Your task to perform on an android device: turn off smart reply in the gmail app Image 0: 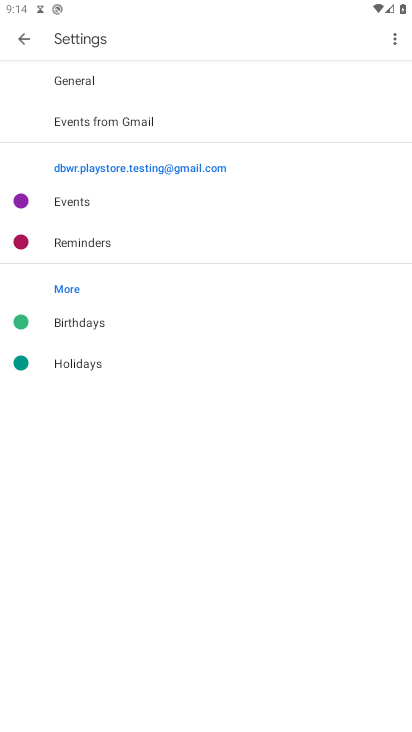
Step 0: press home button
Your task to perform on an android device: turn off smart reply in the gmail app Image 1: 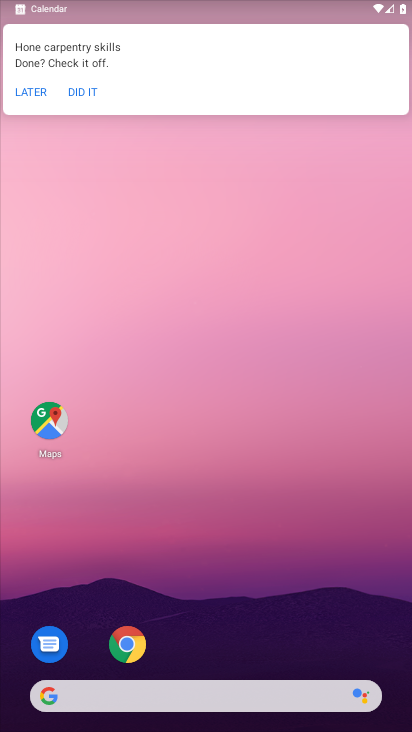
Step 1: drag from (215, 655) to (239, 126)
Your task to perform on an android device: turn off smart reply in the gmail app Image 2: 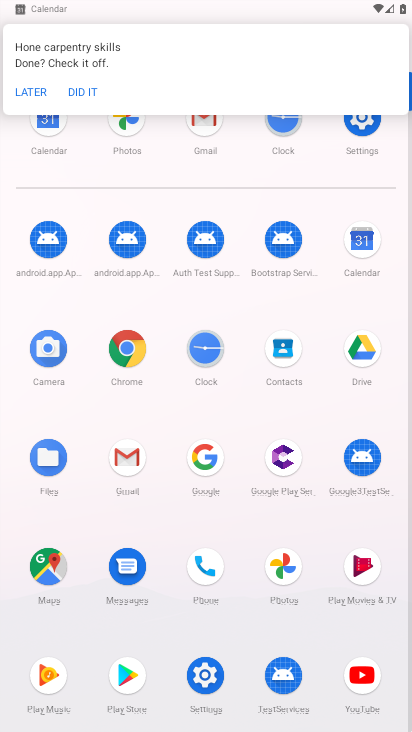
Step 2: click (32, 90)
Your task to perform on an android device: turn off smart reply in the gmail app Image 3: 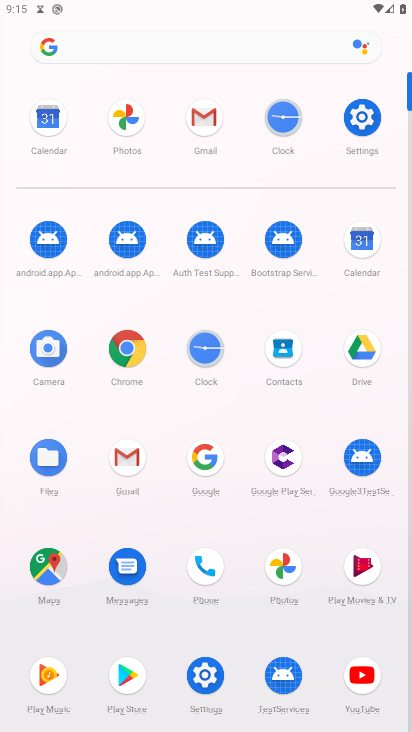
Step 3: click (123, 456)
Your task to perform on an android device: turn off smart reply in the gmail app Image 4: 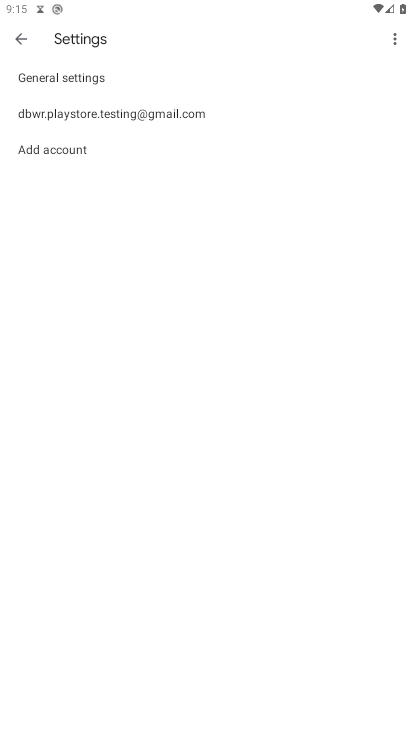
Step 4: click (97, 105)
Your task to perform on an android device: turn off smart reply in the gmail app Image 5: 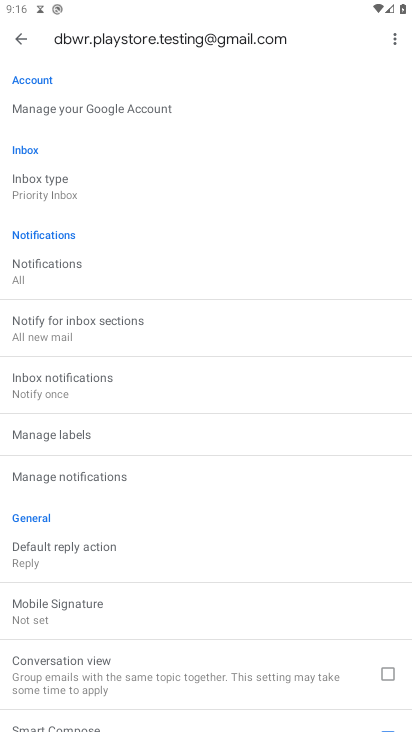
Step 5: drag from (131, 617) to (164, 63)
Your task to perform on an android device: turn off smart reply in the gmail app Image 6: 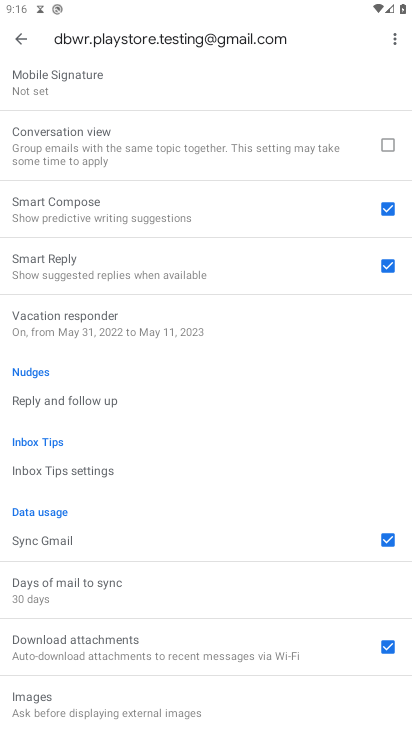
Step 6: click (389, 265)
Your task to perform on an android device: turn off smart reply in the gmail app Image 7: 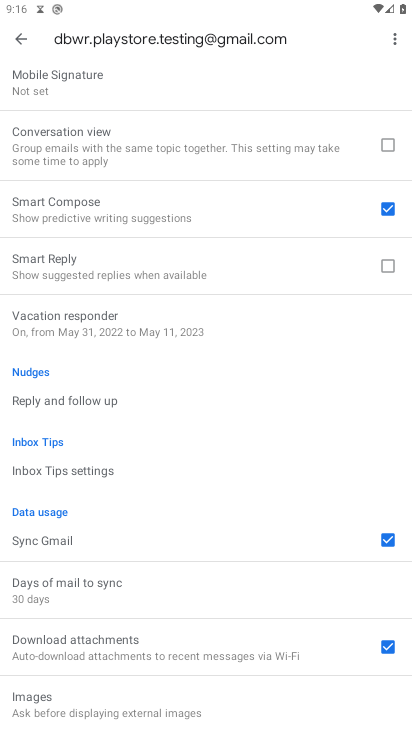
Step 7: task complete